Your task to perform on an android device: find snoozed emails in the gmail app Image 0: 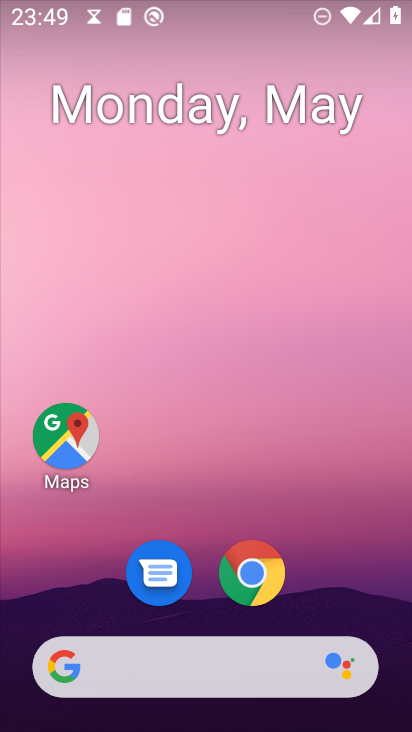
Step 0: drag from (337, 556) to (151, 17)
Your task to perform on an android device: find snoozed emails in the gmail app Image 1: 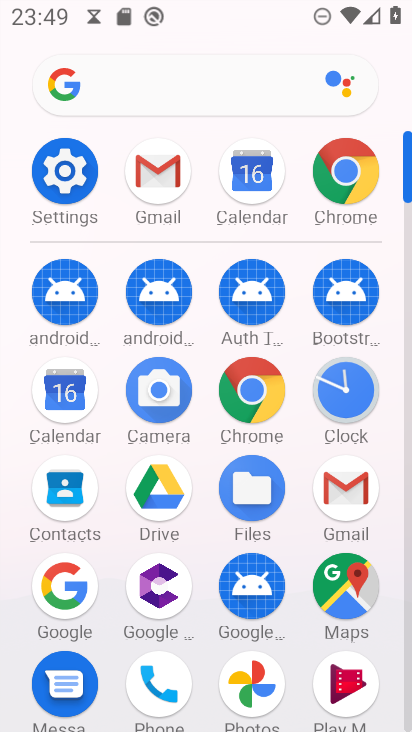
Step 1: click (158, 196)
Your task to perform on an android device: find snoozed emails in the gmail app Image 2: 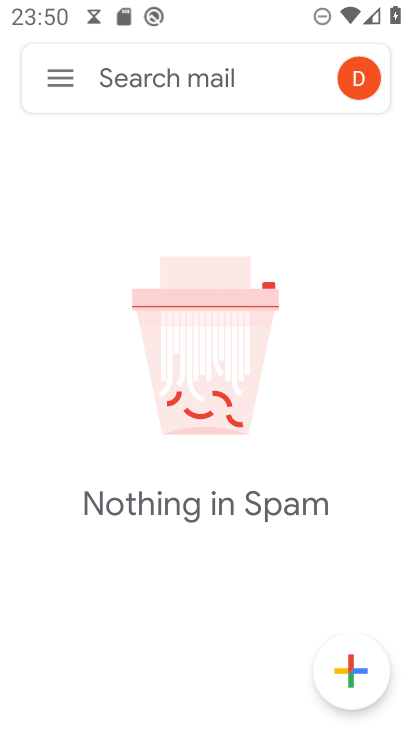
Step 2: click (59, 83)
Your task to perform on an android device: find snoozed emails in the gmail app Image 3: 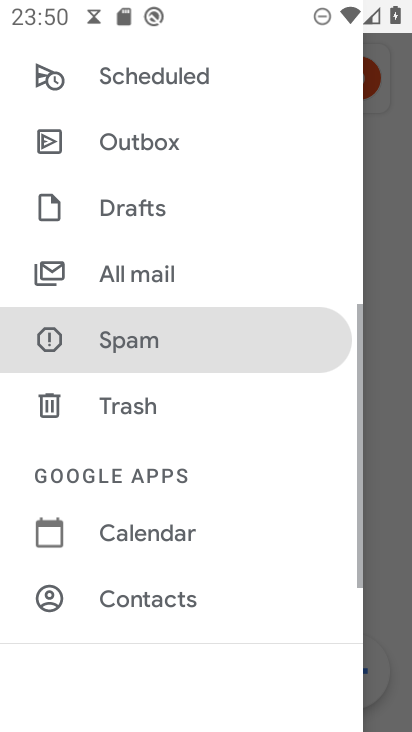
Step 3: drag from (205, 154) to (184, 661)
Your task to perform on an android device: find snoozed emails in the gmail app Image 4: 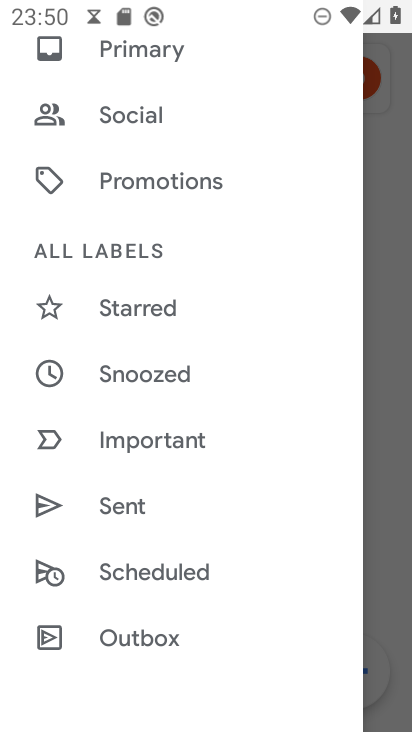
Step 4: click (171, 378)
Your task to perform on an android device: find snoozed emails in the gmail app Image 5: 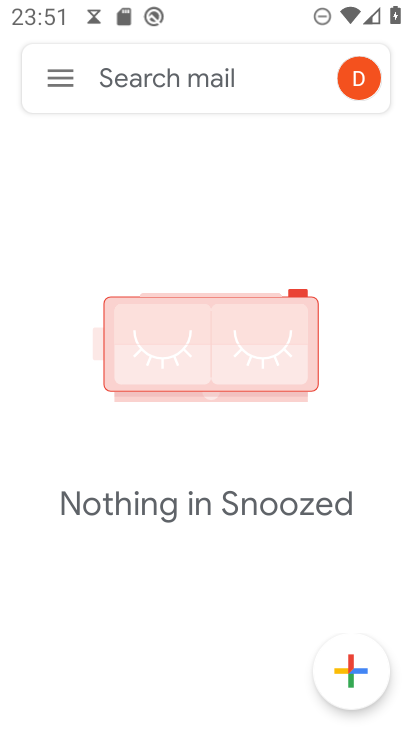
Step 5: task complete